Your task to perform on an android device: clear all cookies in the chrome app Image 0: 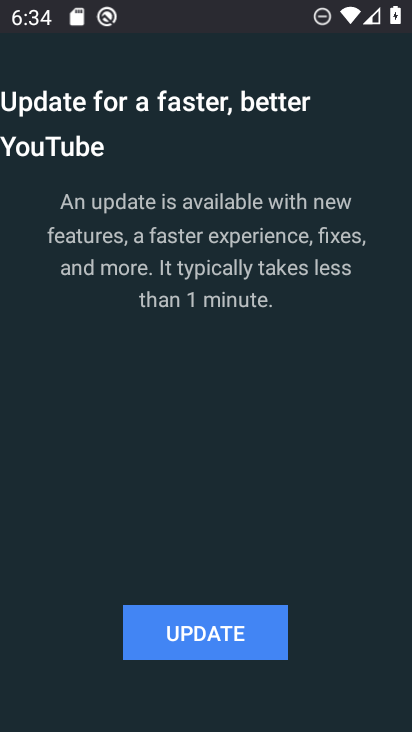
Step 0: press back button
Your task to perform on an android device: clear all cookies in the chrome app Image 1: 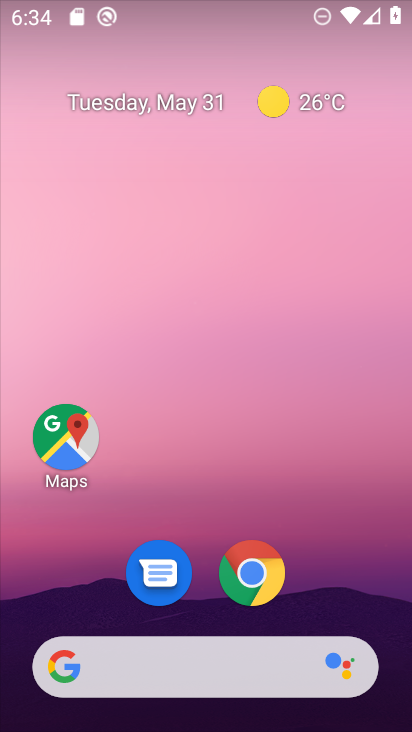
Step 1: drag from (385, 619) to (294, 27)
Your task to perform on an android device: clear all cookies in the chrome app Image 2: 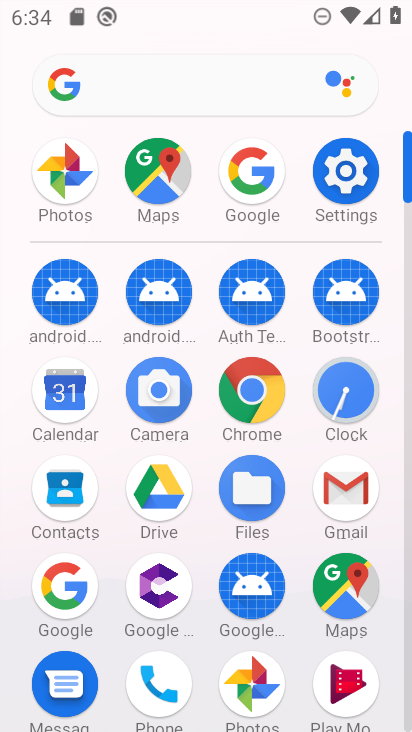
Step 2: click (269, 415)
Your task to perform on an android device: clear all cookies in the chrome app Image 3: 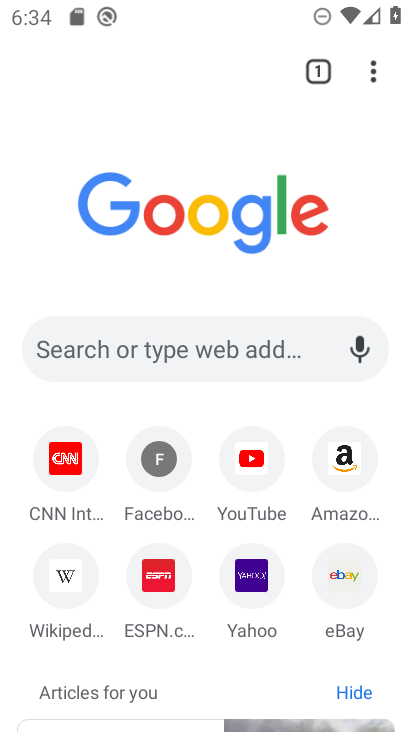
Step 3: click (379, 66)
Your task to perform on an android device: clear all cookies in the chrome app Image 4: 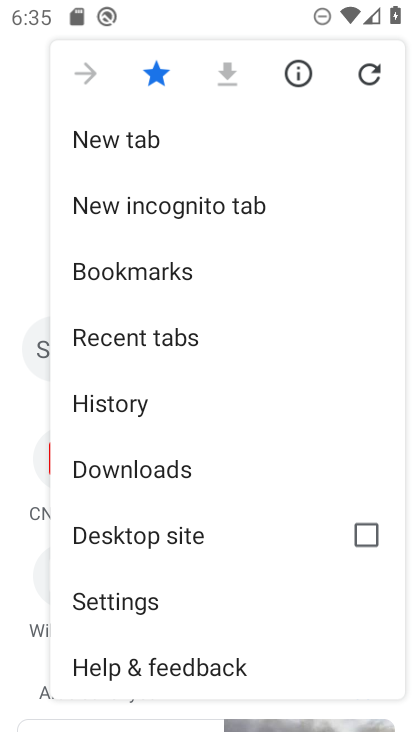
Step 4: click (167, 396)
Your task to perform on an android device: clear all cookies in the chrome app Image 5: 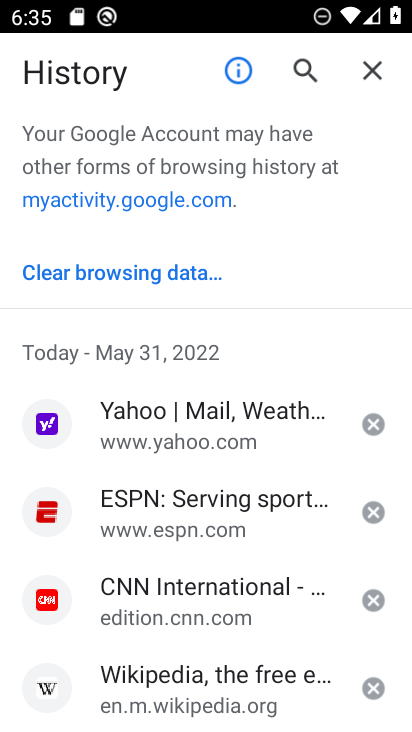
Step 5: click (107, 286)
Your task to perform on an android device: clear all cookies in the chrome app Image 6: 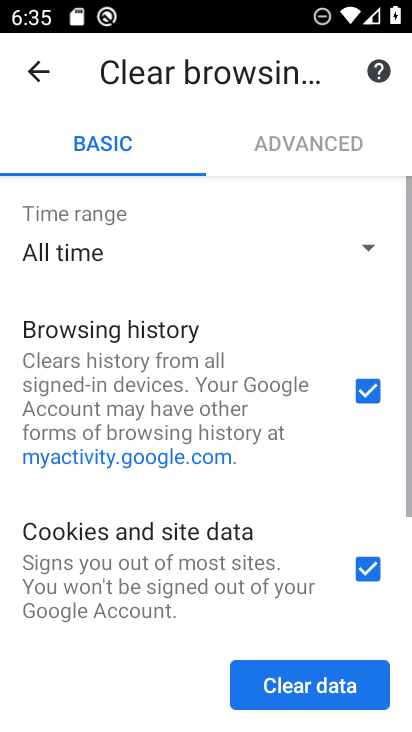
Step 6: click (272, 703)
Your task to perform on an android device: clear all cookies in the chrome app Image 7: 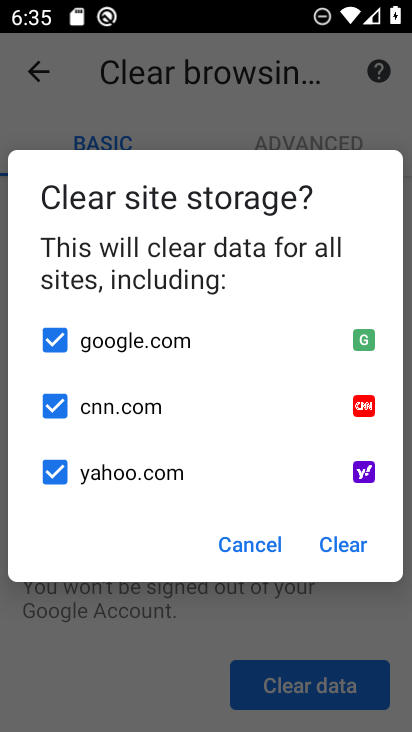
Step 7: click (365, 537)
Your task to perform on an android device: clear all cookies in the chrome app Image 8: 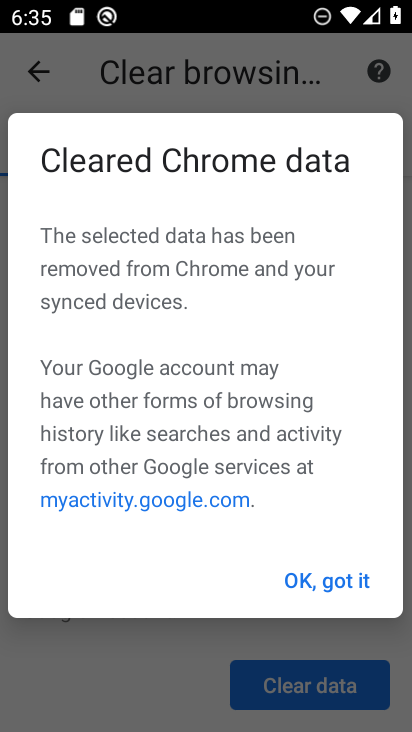
Step 8: click (348, 577)
Your task to perform on an android device: clear all cookies in the chrome app Image 9: 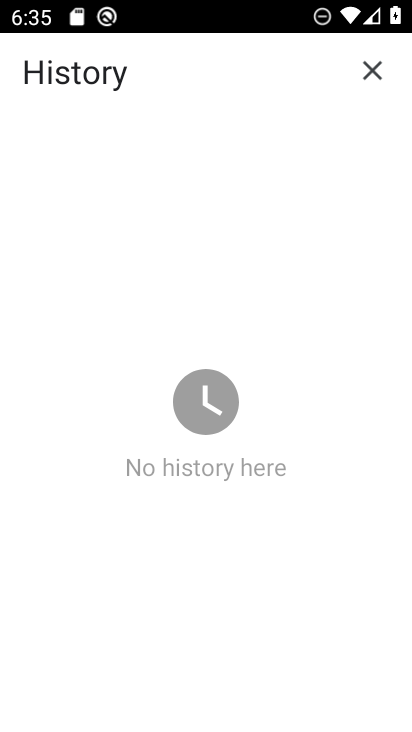
Step 9: task complete